Your task to perform on an android device: Search for sushi restaurants on Maps Image 0: 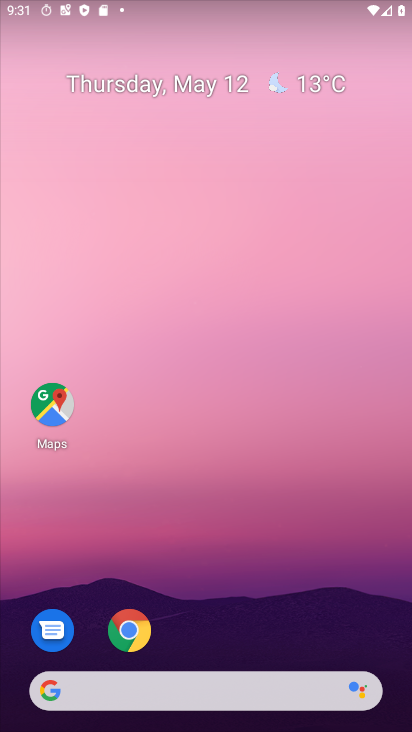
Step 0: drag from (244, 674) to (236, 37)
Your task to perform on an android device: Search for sushi restaurants on Maps Image 1: 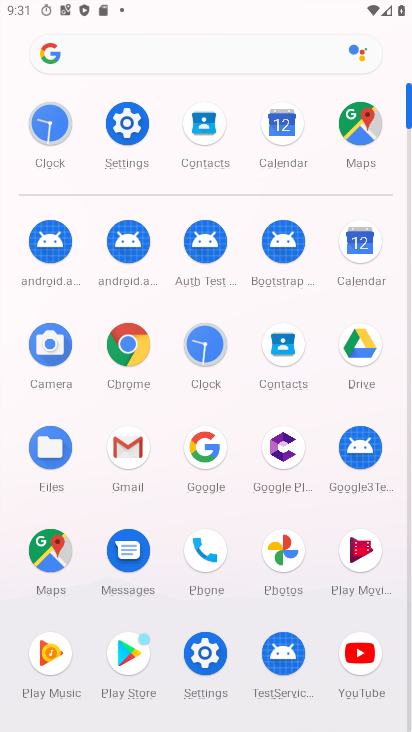
Step 1: click (370, 104)
Your task to perform on an android device: Search for sushi restaurants on Maps Image 2: 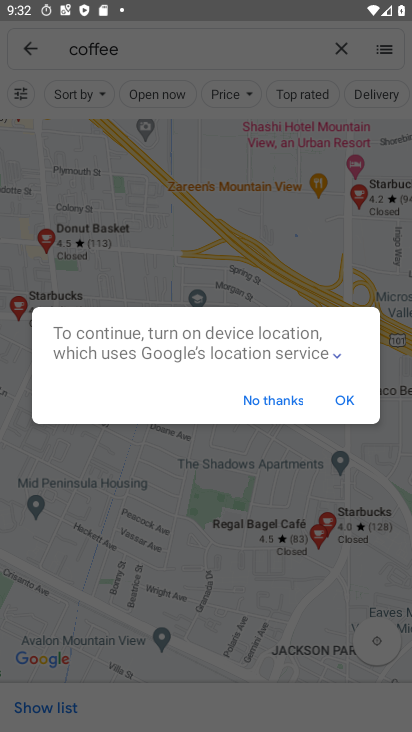
Step 2: click (350, 405)
Your task to perform on an android device: Search for sushi restaurants on Maps Image 3: 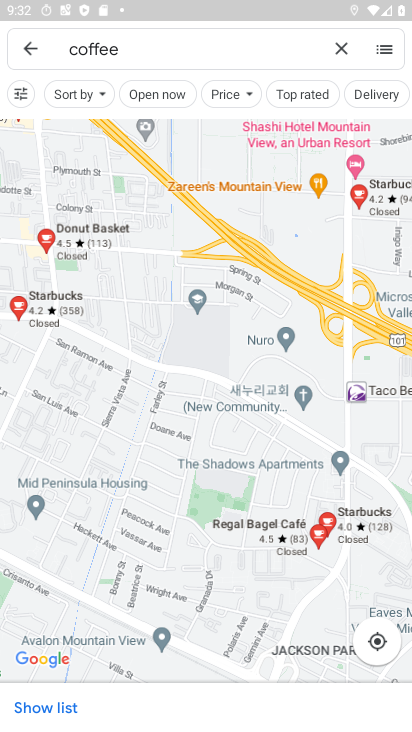
Step 3: click (343, 52)
Your task to perform on an android device: Search for sushi restaurants on Maps Image 4: 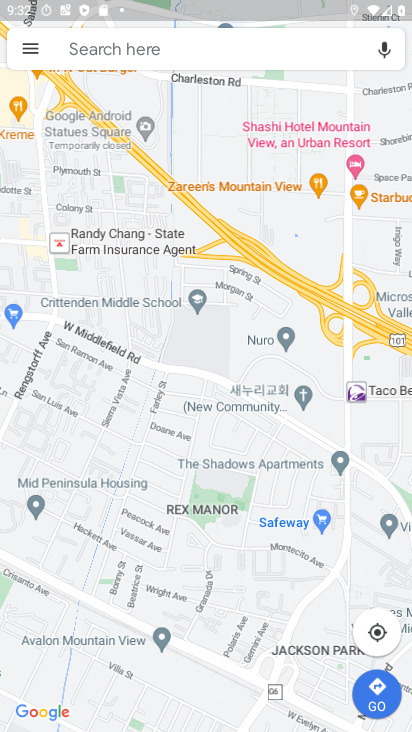
Step 4: click (139, 50)
Your task to perform on an android device: Search for sushi restaurants on Maps Image 5: 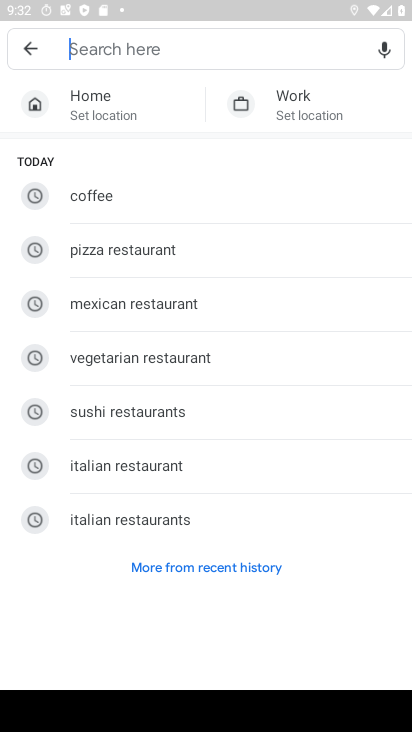
Step 5: click (175, 410)
Your task to perform on an android device: Search for sushi restaurants on Maps Image 6: 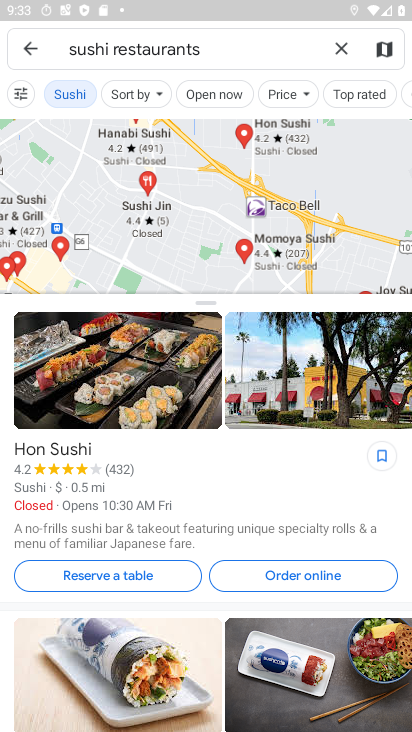
Step 6: task complete